Your task to perform on an android device: What's on my calendar today? Image 0: 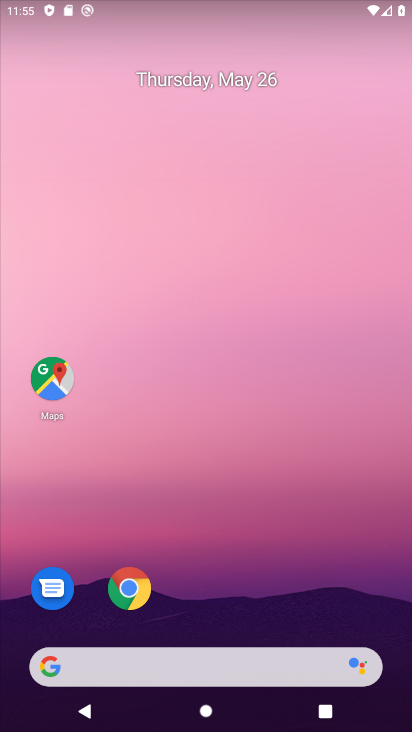
Step 0: drag from (203, 651) to (180, 159)
Your task to perform on an android device: What's on my calendar today? Image 1: 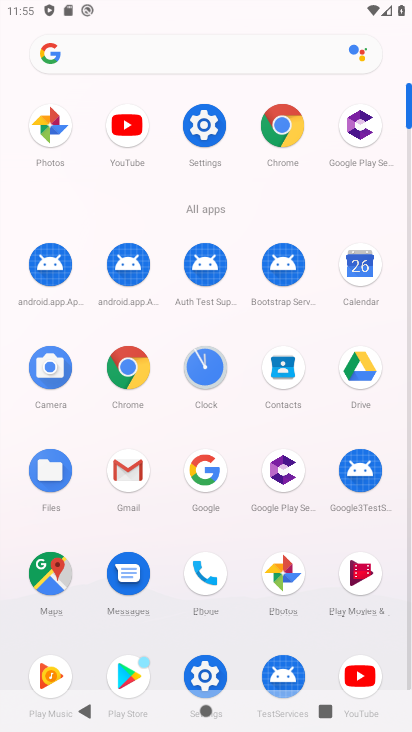
Step 1: click (371, 264)
Your task to perform on an android device: What's on my calendar today? Image 2: 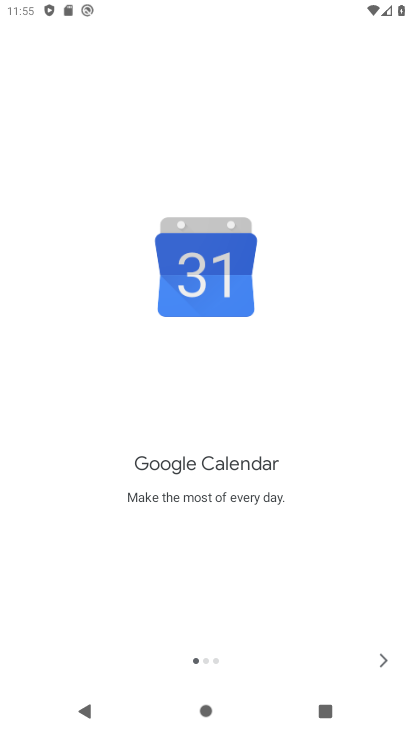
Step 2: click (376, 665)
Your task to perform on an android device: What's on my calendar today? Image 3: 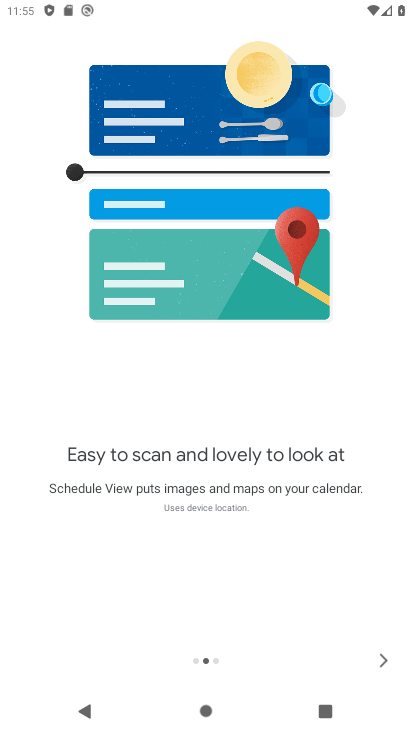
Step 3: click (376, 665)
Your task to perform on an android device: What's on my calendar today? Image 4: 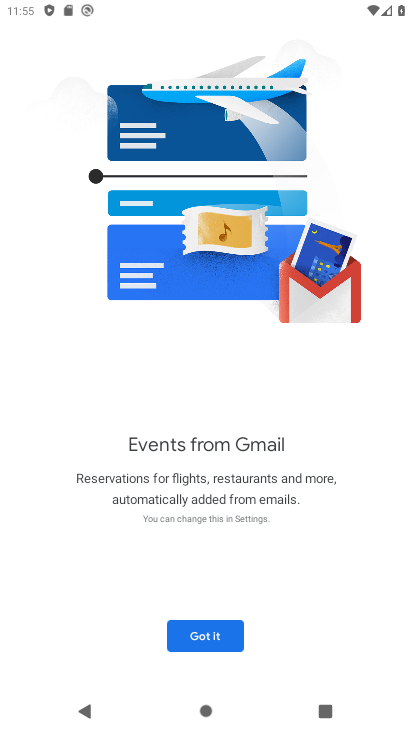
Step 4: click (219, 639)
Your task to perform on an android device: What's on my calendar today? Image 5: 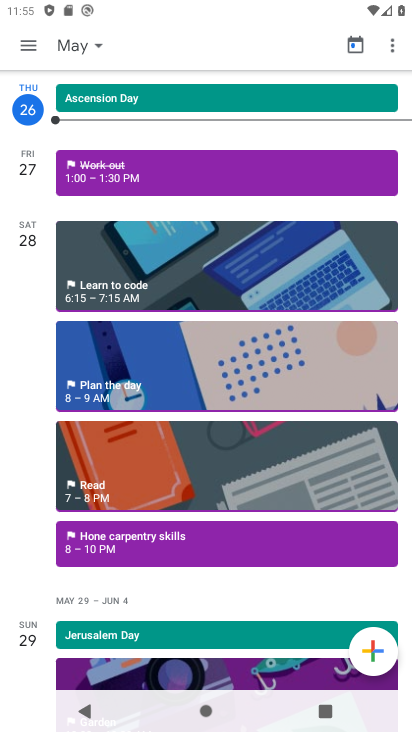
Step 5: click (87, 47)
Your task to perform on an android device: What's on my calendar today? Image 6: 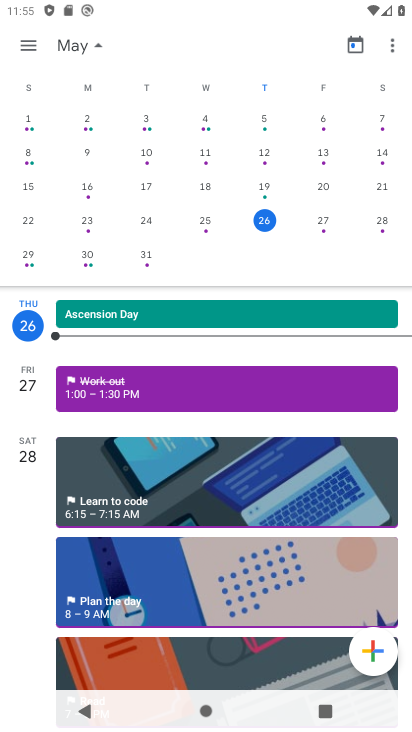
Step 6: click (267, 222)
Your task to perform on an android device: What's on my calendar today? Image 7: 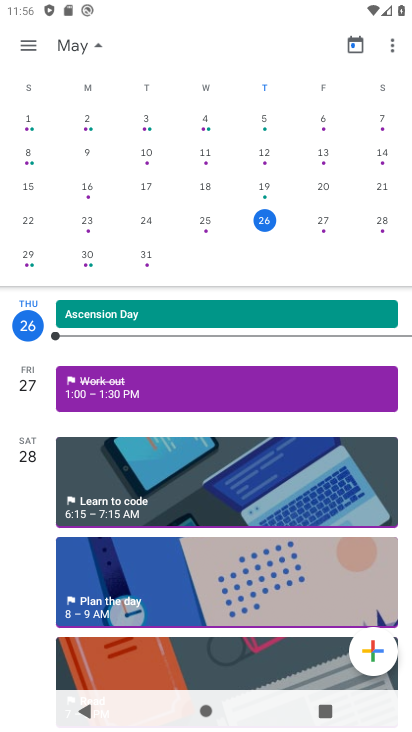
Step 7: task complete